Your task to perform on an android device: find snoozed emails in the gmail app Image 0: 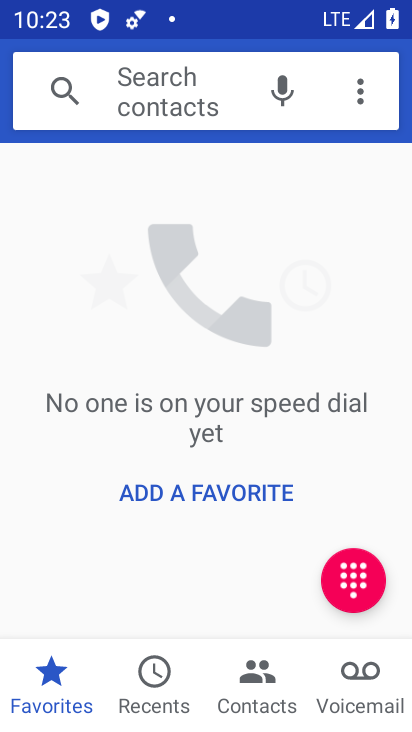
Step 0: press back button
Your task to perform on an android device: find snoozed emails in the gmail app Image 1: 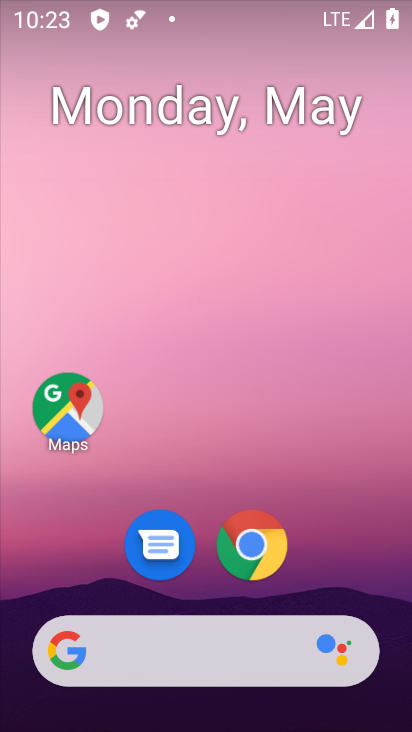
Step 1: drag from (342, 546) to (201, 99)
Your task to perform on an android device: find snoozed emails in the gmail app Image 2: 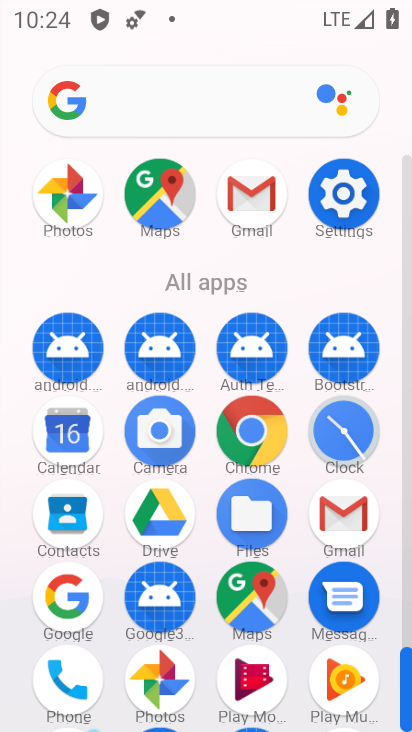
Step 2: click (249, 196)
Your task to perform on an android device: find snoozed emails in the gmail app Image 3: 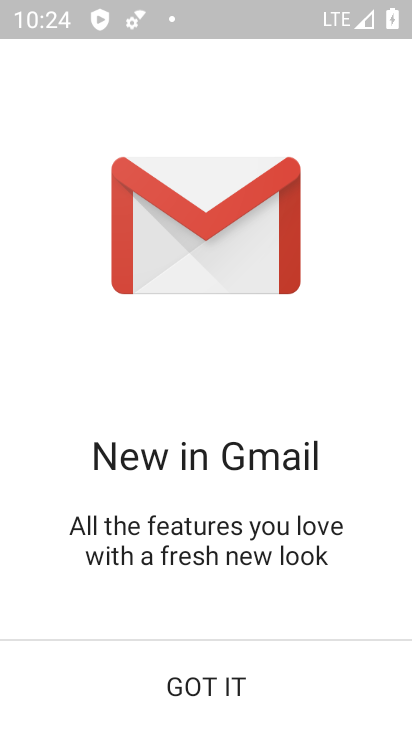
Step 3: click (183, 685)
Your task to perform on an android device: find snoozed emails in the gmail app Image 4: 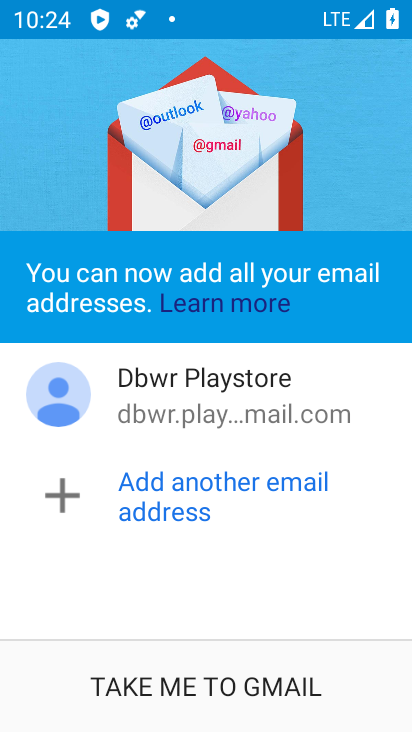
Step 4: click (171, 682)
Your task to perform on an android device: find snoozed emails in the gmail app Image 5: 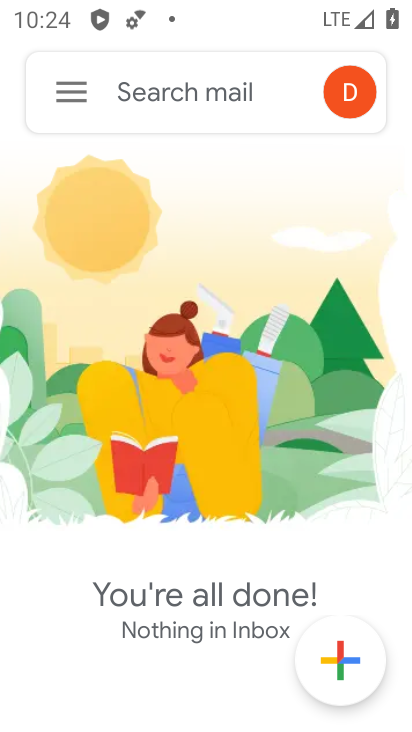
Step 5: click (72, 91)
Your task to perform on an android device: find snoozed emails in the gmail app Image 6: 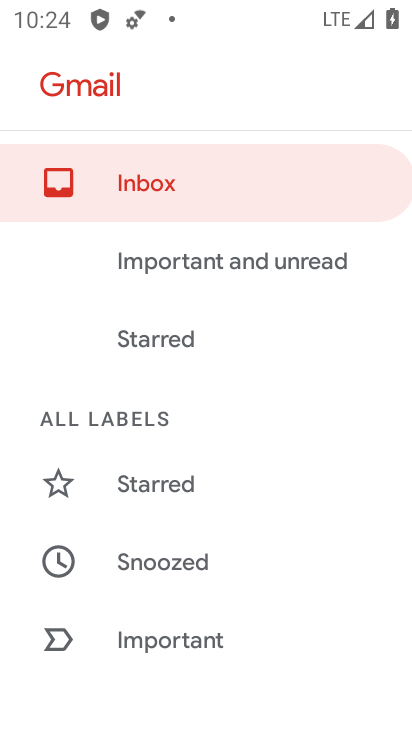
Step 6: click (162, 570)
Your task to perform on an android device: find snoozed emails in the gmail app Image 7: 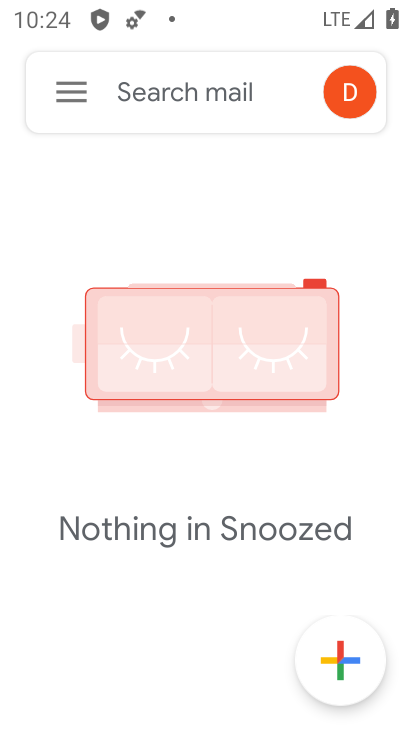
Step 7: click (68, 92)
Your task to perform on an android device: find snoozed emails in the gmail app Image 8: 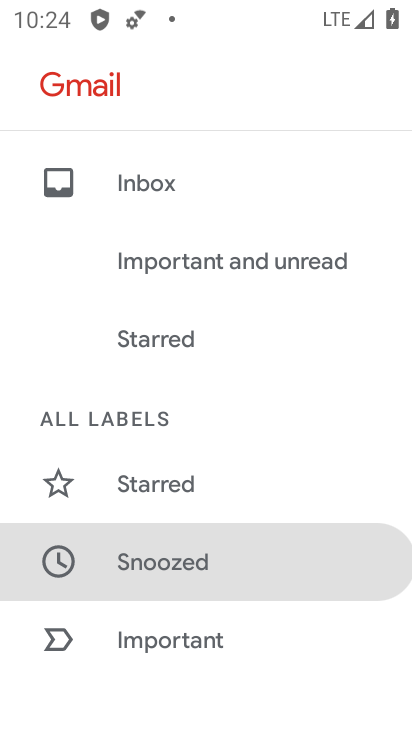
Step 8: task complete